Your task to perform on an android device: Open ESPN.com Image 0: 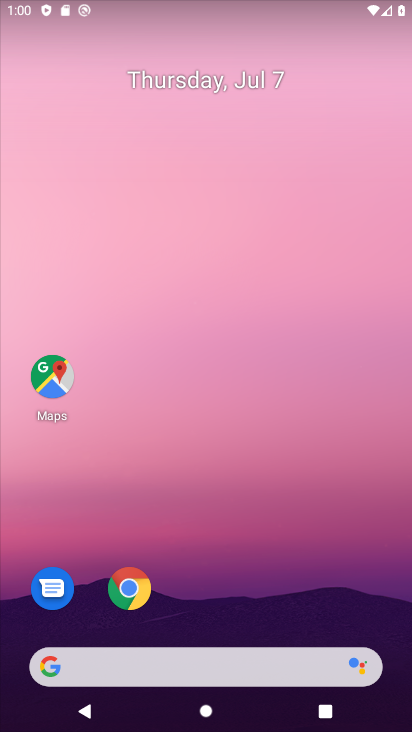
Step 0: click (134, 581)
Your task to perform on an android device: Open ESPN.com Image 1: 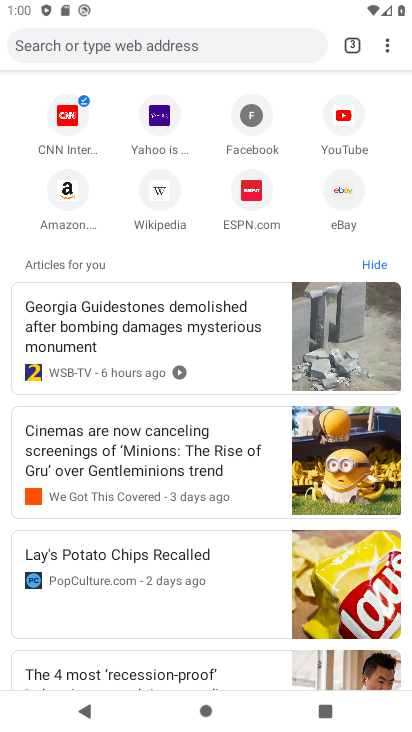
Step 1: click (250, 202)
Your task to perform on an android device: Open ESPN.com Image 2: 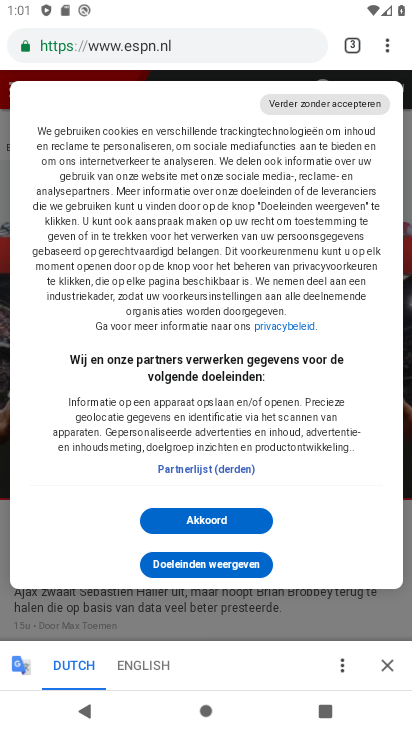
Step 2: click (164, 503)
Your task to perform on an android device: Open ESPN.com Image 3: 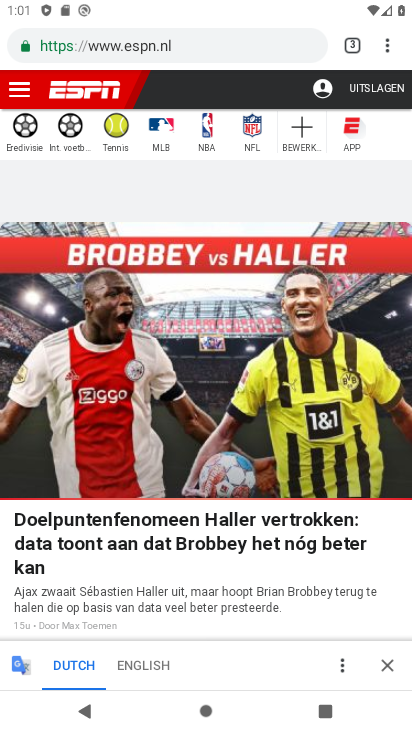
Step 3: task complete